Your task to perform on an android device: Go to Yahoo.com Image 0: 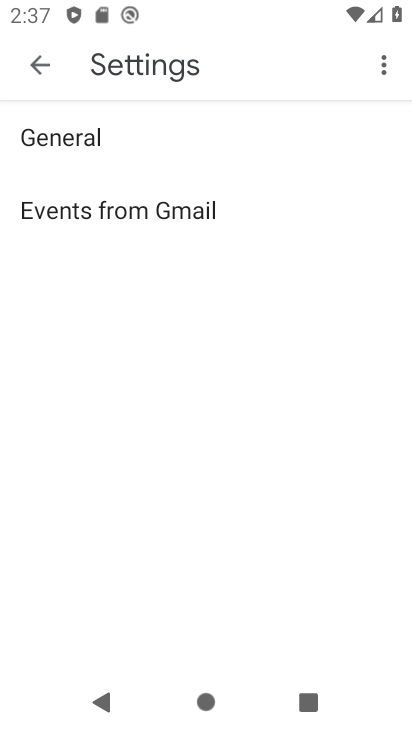
Step 0: press home button
Your task to perform on an android device: Go to Yahoo.com Image 1: 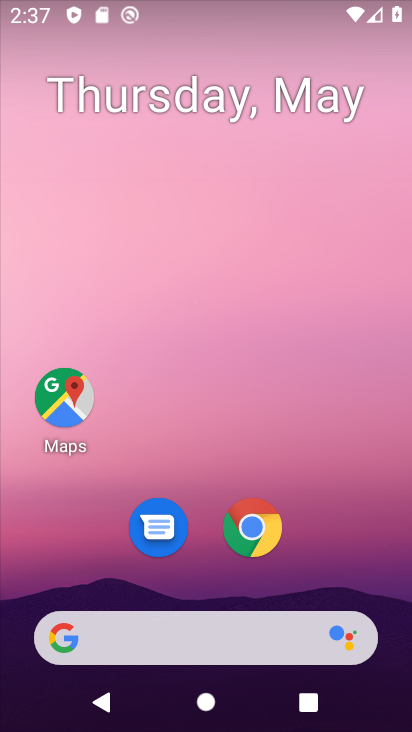
Step 1: click (248, 533)
Your task to perform on an android device: Go to Yahoo.com Image 2: 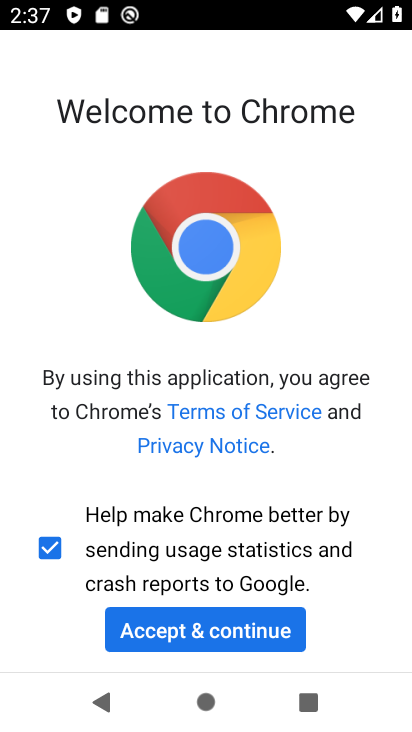
Step 2: click (210, 630)
Your task to perform on an android device: Go to Yahoo.com Image 3: 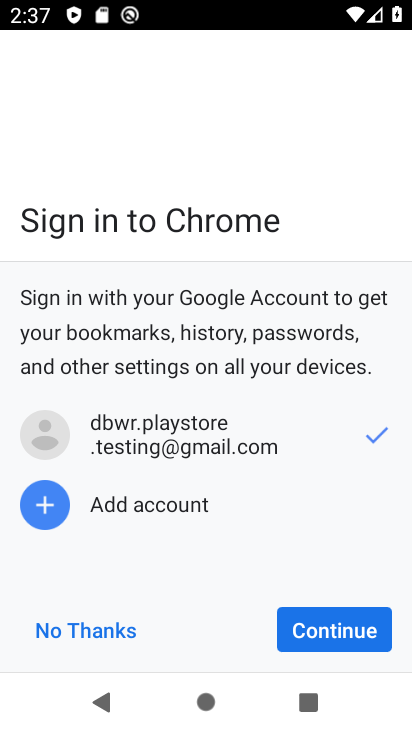
Step 3: click (296, 639)
Your task to perform on an android device: Go to Yahoo.com Image 4: 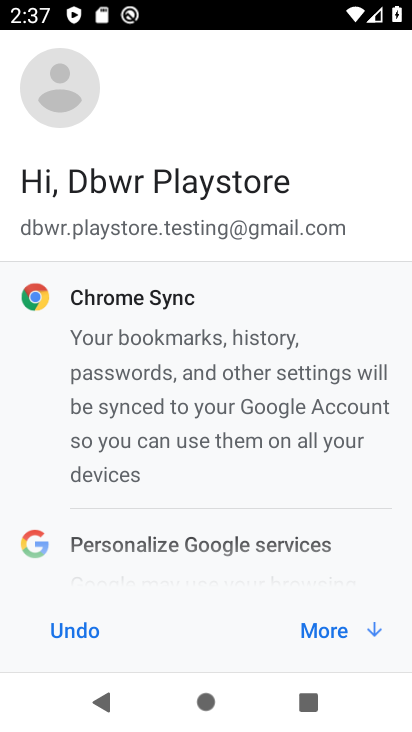
Step 4: click (339, 636)
Your task to perform on an android device: Go to Yahoo.com Image 5: 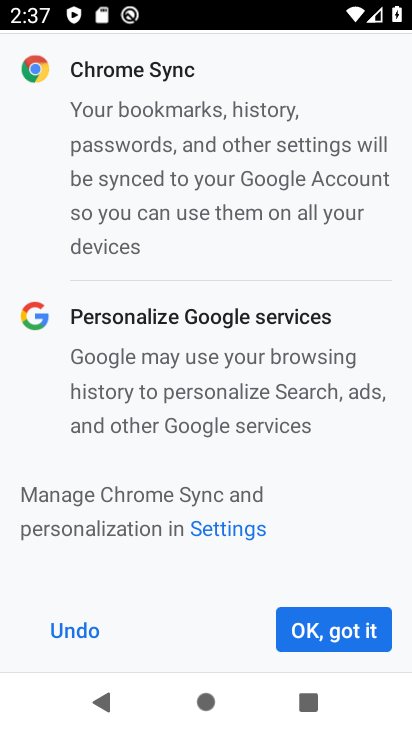
Step 5: click (314, 624)
Your task to perform on an android device: Go to Yahoo.com Image 6: 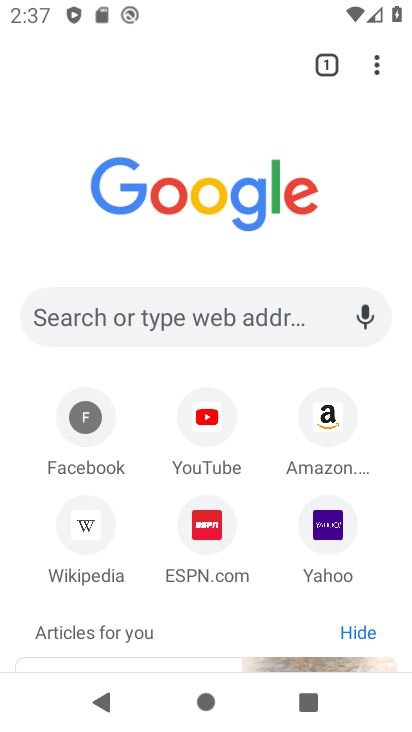
Step 6: click (205, 315)
Your task to perform on an android device: Go to Yahoo.com Image 7: 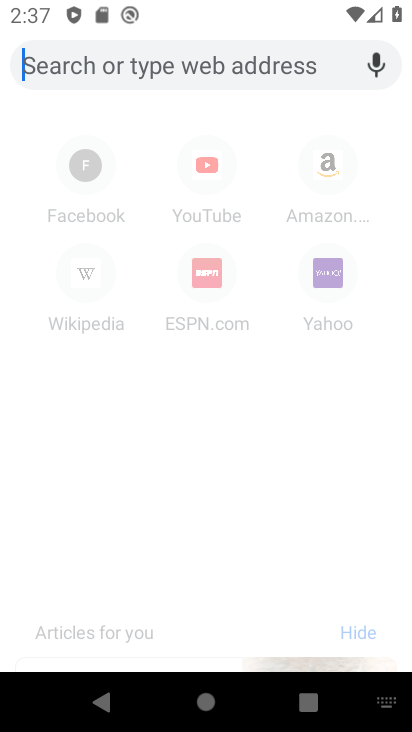
Step 7: type "yahoo.com"
Your task to perform on an android device: Go to Yahoo.com Image 8: 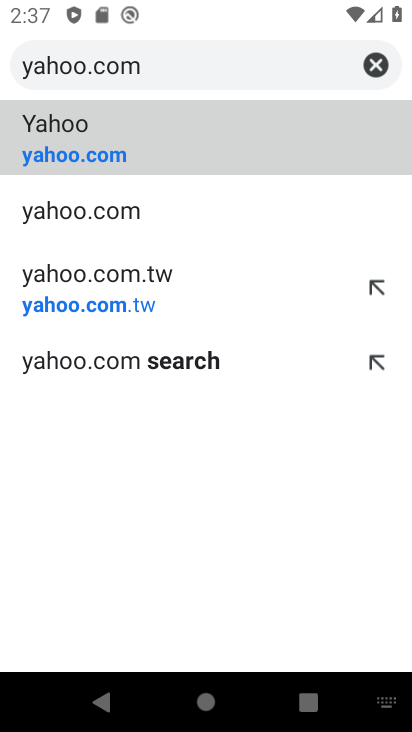
Step 8: click (162, 160)
Your task to perform on an android device: Go to Yahoo.com Image 9: 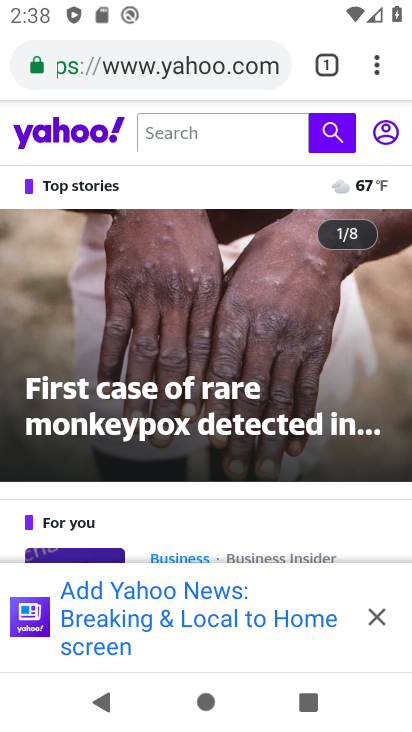
Step 9: task complete